Your task to perform on an android device: turn on notifications settings in the gmail app Image 0: 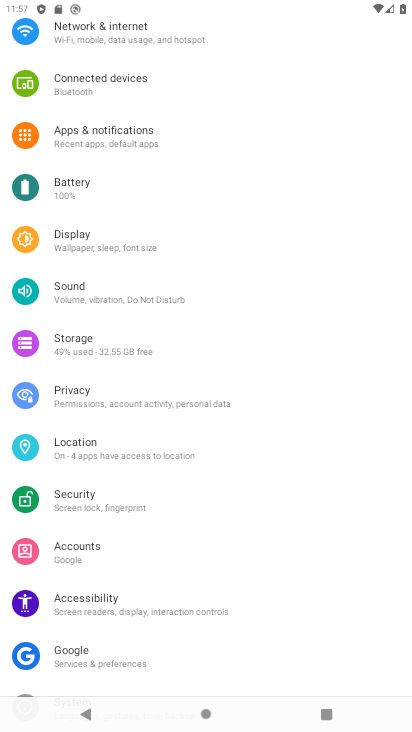
Step 0: press home button
Your task to perform on an android device: turn on notifications settings in the gmail app Image 1: 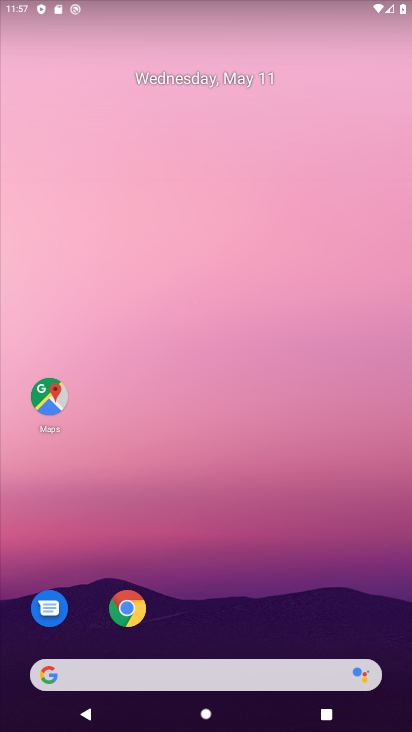
Step 1: drag from (347, 479) to (350, 70)
Your task to perform on an android device: turn on notifications settings in the gmail app Image 2: 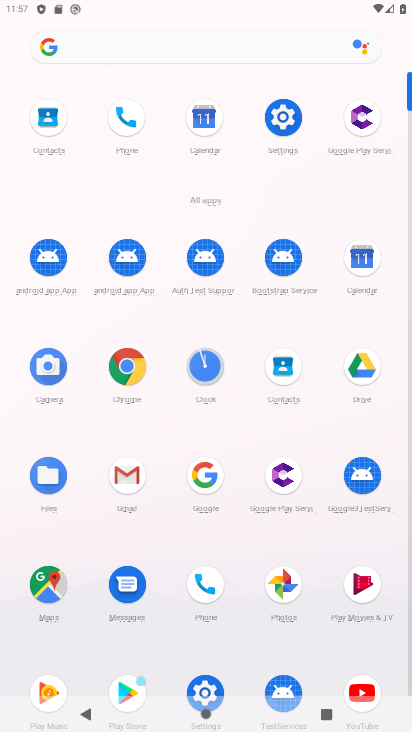
Step 2: click (150, 482)
Your task to perform on an android device: turn on notifications settings in the gmail app Image 3: 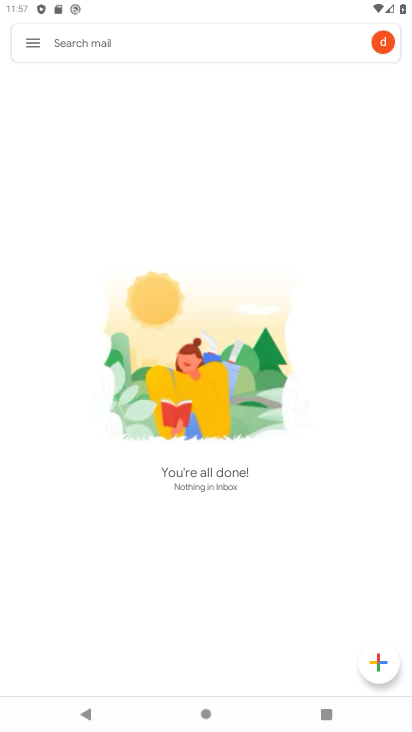
Step 3: click (39, 49)
Your task to perform on an android device: turn on notifications settings in the gmail app Image 4: 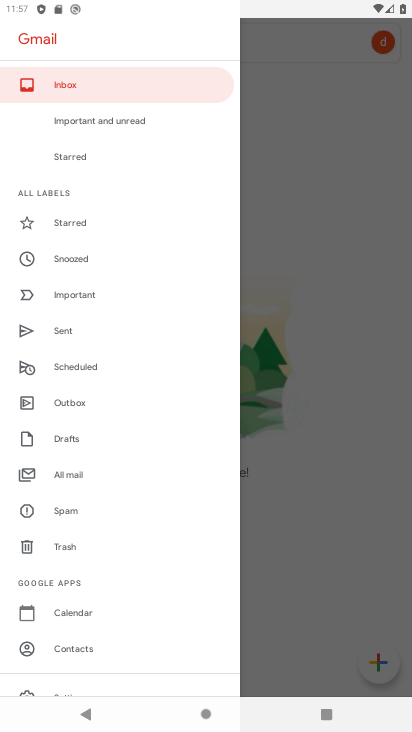
Step 4: drag from (136, 627) to (173, 374)
Your task to perform on an android device: turn on notifications settings in the gmail app Image 5: 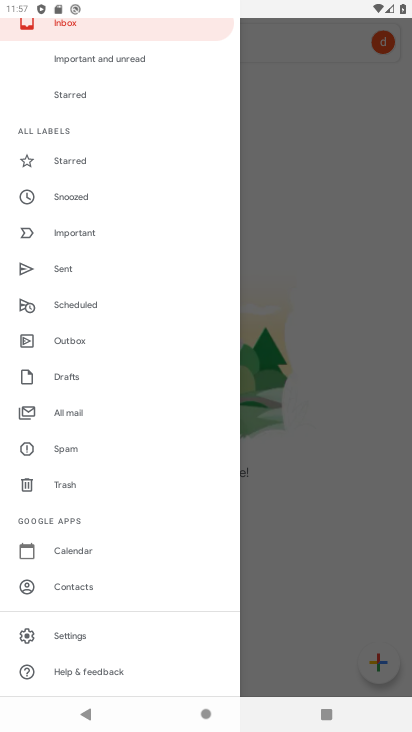
Step 5: click (84, 639)
Your task to perform on an android device: turn on notifications settings in the gmail app Image 6: 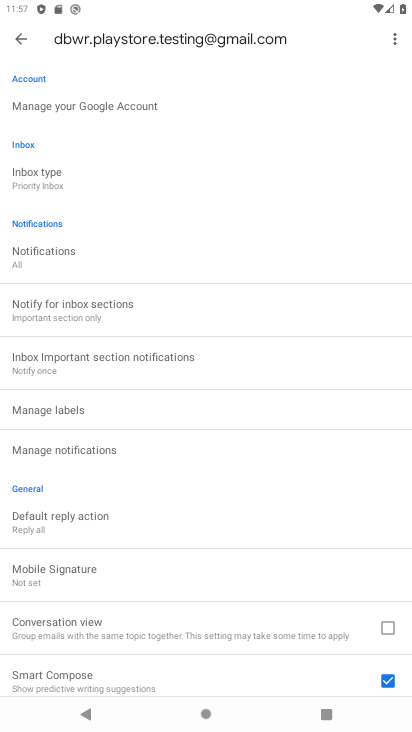
Step 6: click (20, 43)
Your task to perform on an android device: turn on notifications settings in the gmail app Image 7: 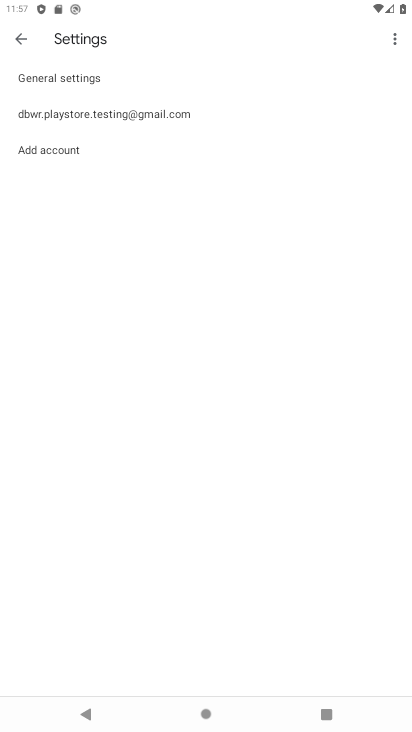
Step 7: click (88, 87)
Your task to perform on an android device: turn on notifications settings in the gmail app Image 8: 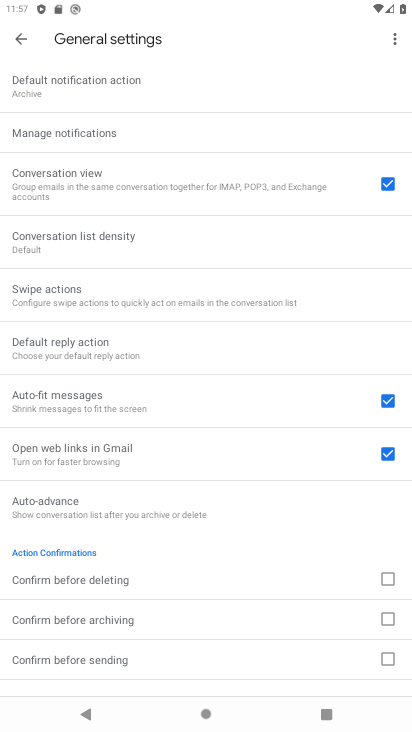
Step 8: click (85, 126)
Your task to perform on an android device: turn on notifications settings in the gmail app Image 9: 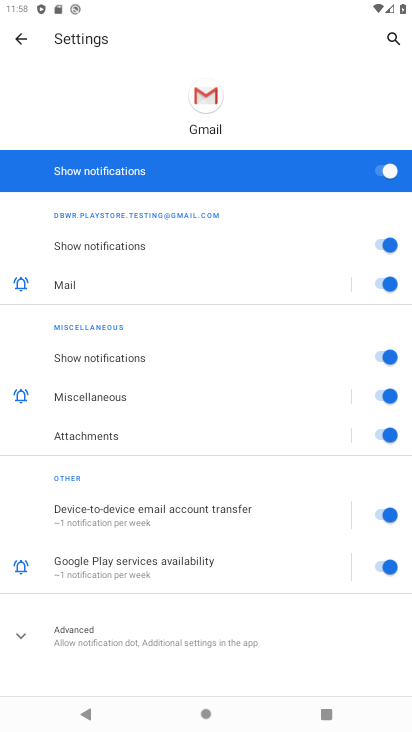
Step 9: task complete